Your task to perform on an android device: What is the speed of a skateboard? Image 0: 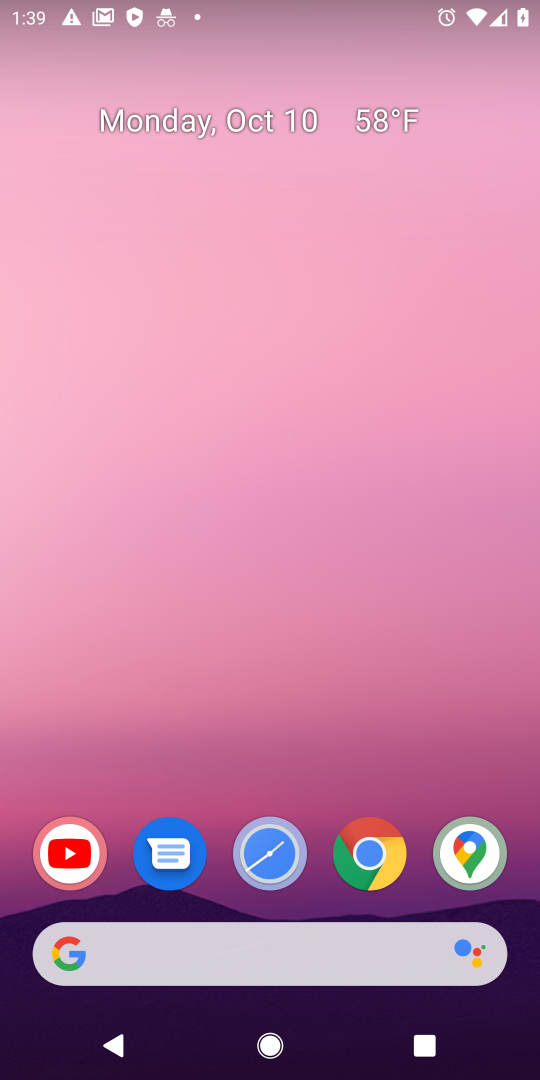
Step 0: drag from (293, 930) to (327, 507)
Your task to perform on an android device: What is the speed of a skateboard? Image 1: 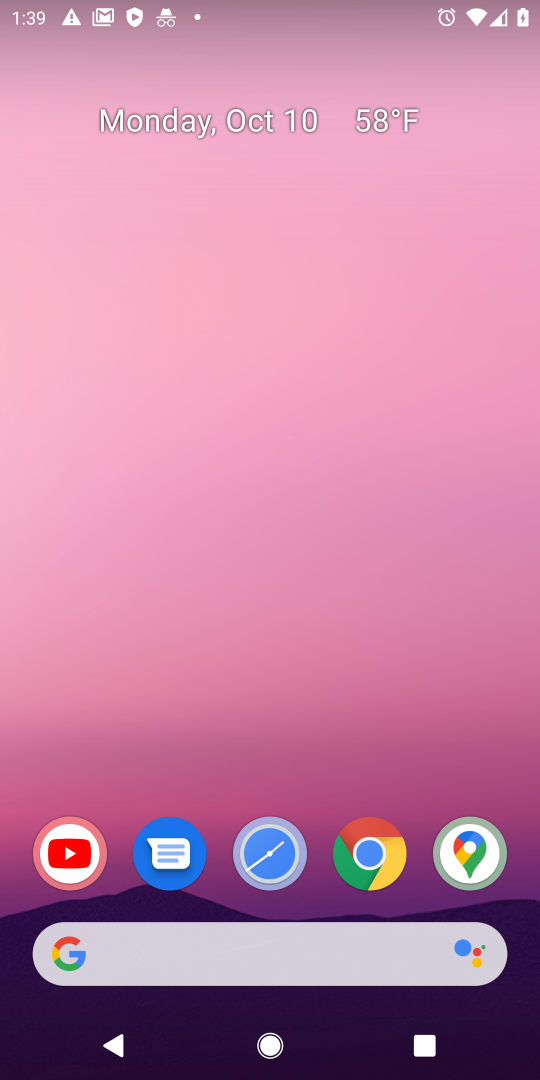
Step 1: click (367, 861)
Your task to perform on an android device: What is the speed of a skateboard? Image 2: 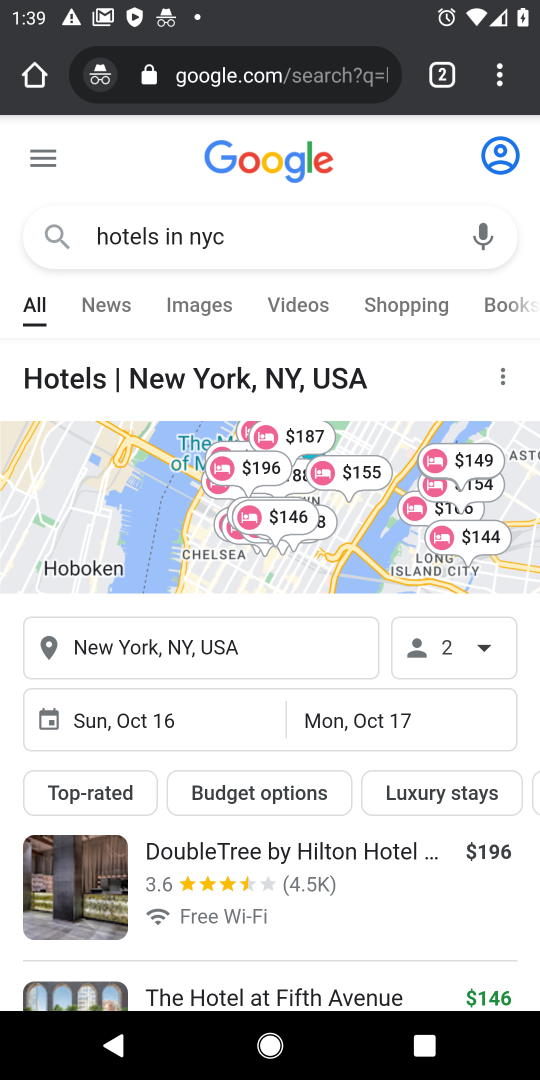
Step 2: click (262, 237)
Your task to perform on an android device: What is the speed of a skateboard? Image 3: 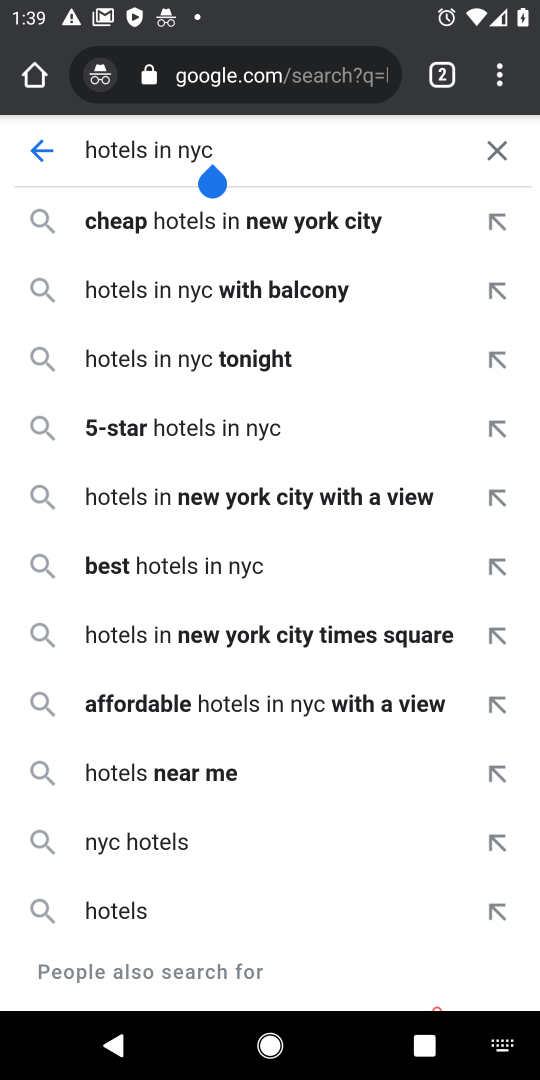
Step 3: click (490, 149)
Your task to perform on an android device: What is the speed of a skateboard? Image 4: 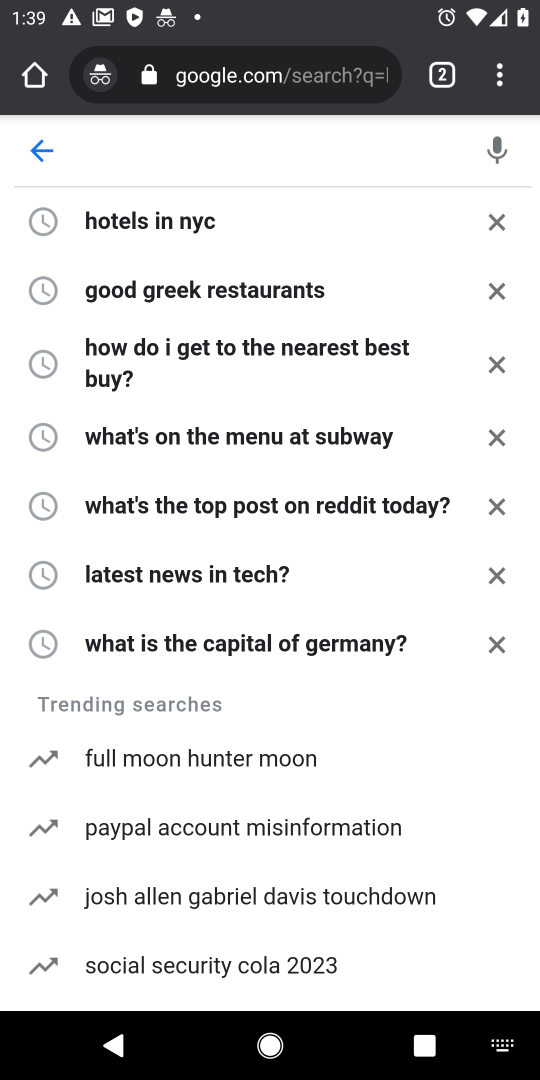
Step 4: type "speed of a skateboard"
Your task to perform on an android device: What is the speed of a skateboard? Image 5: 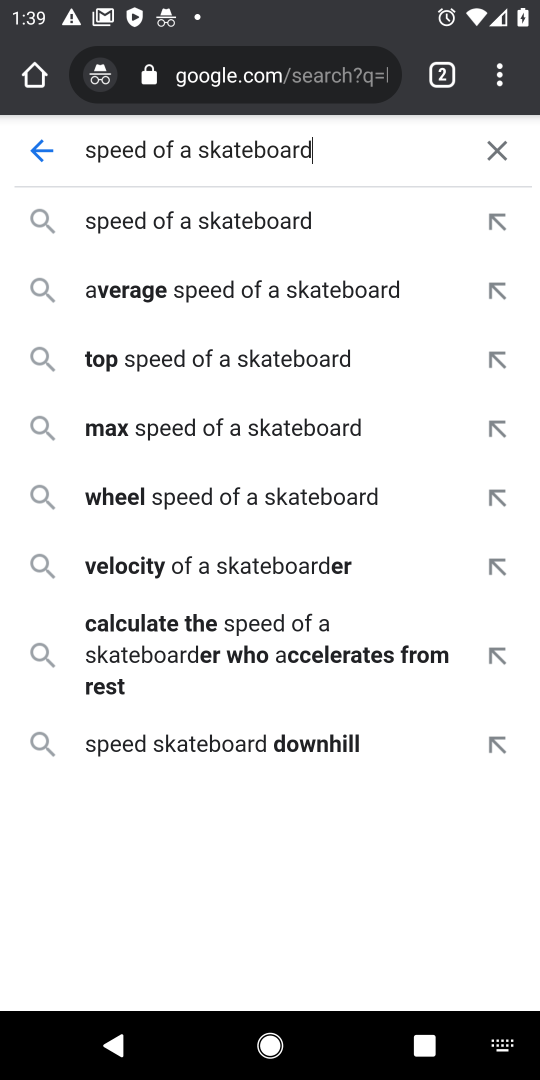
Step 5: click (135, 227)
Your task to perform on an android device: What is the speed of a skateboard? Image 6: 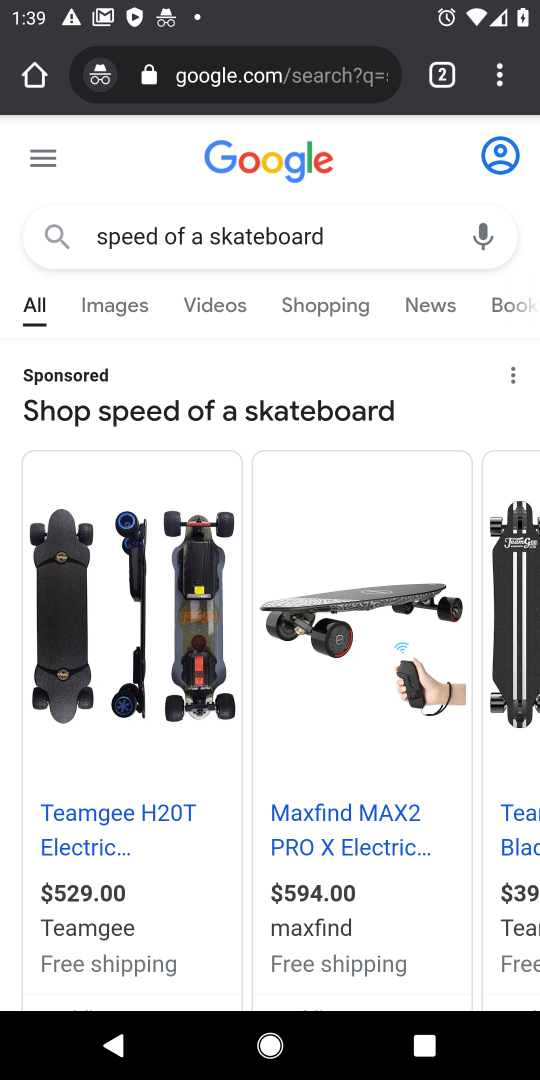
Step 6: task complete